Your task to perform on an android device: Go to calendar. Show me events next week Image 0: 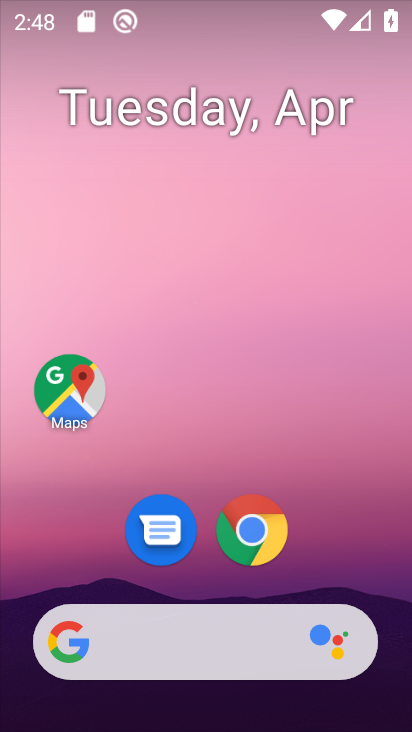
Step 0: drag from (218, 677) to (216, 70)
Your task to perform on an android device: Go to calendar. Show me events next week Image 1: 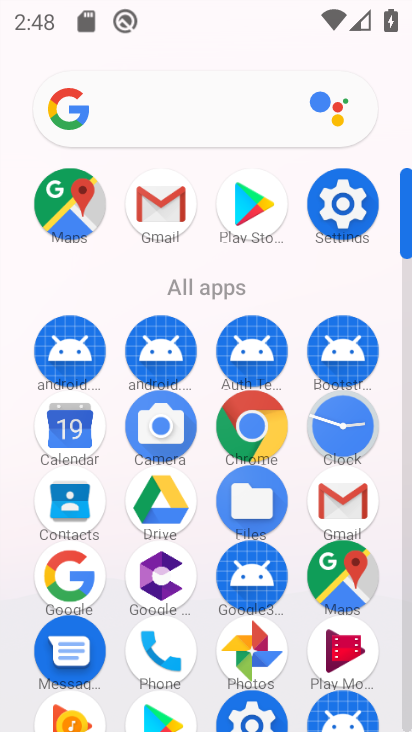
Step 1: click (71, 428)
Your task to perform on an android device: Go to calendar. Show me events next week Image 2: 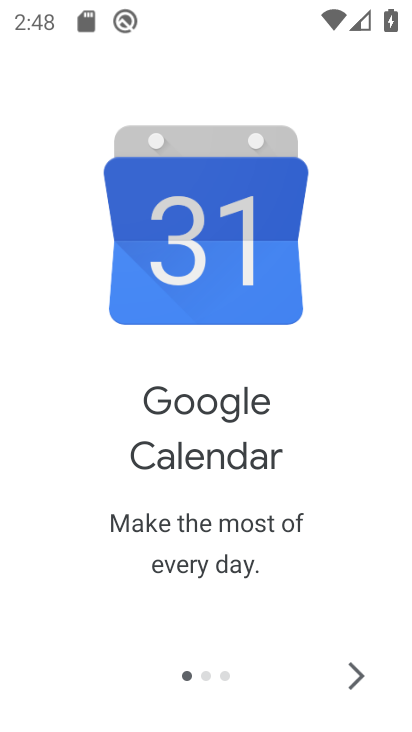
Step 2: click (355, 669)
Your task to perform on an android device: Go to calendar. Show me events next week Image 3: 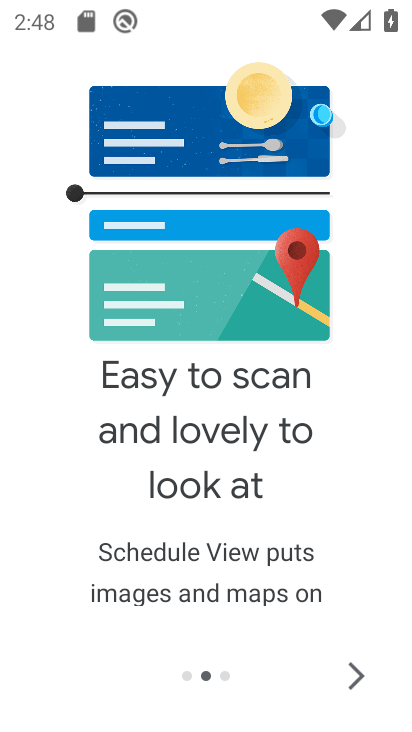
Step 3: click (355, 669)
Your task to perform on an android device: Go to calendar. Show me events next week Image 4: 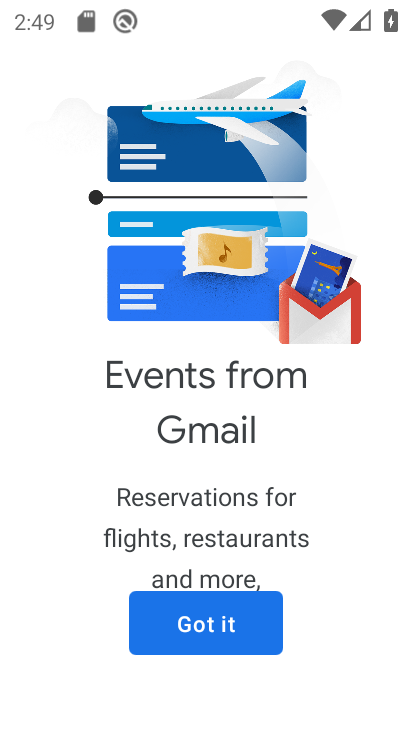
Step 4: click (211, 620)
Your task to perform on an android device: Go to calendar. Show me events next week Image 5: 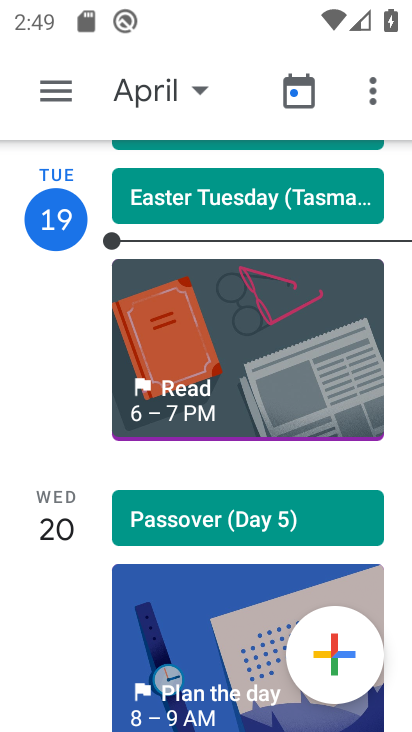
Step 5: click (141, 90)
Your task to perform on an android device: Go to calendar. Show me events next week Image 6: 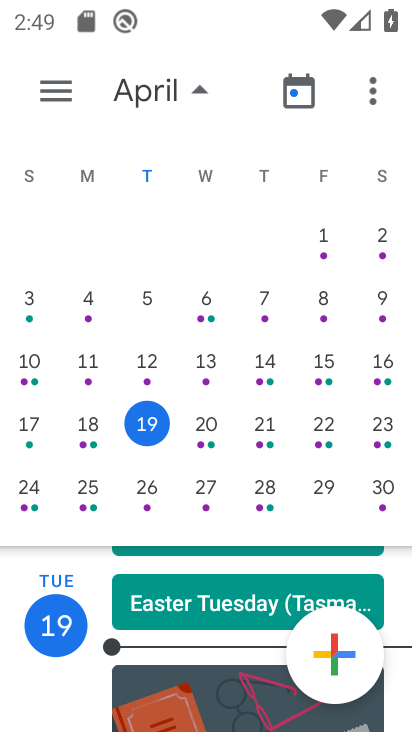
Step 6: click (85, 488)
Your task to perform on an android device: Go to calendar. Show me events next week Image 7: 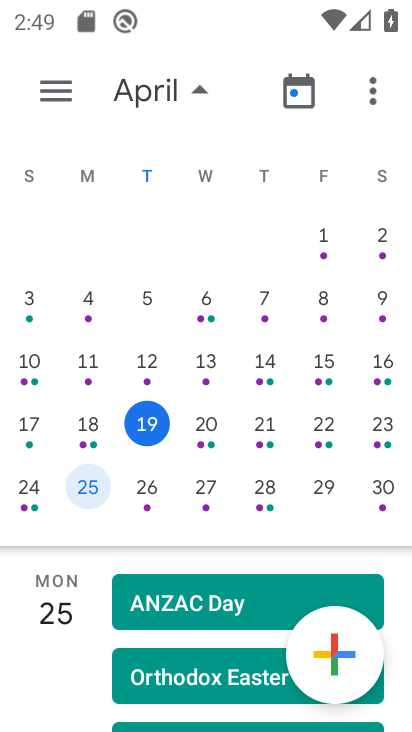
Step 7: click (85, 488)
Your task to perform on an android device: Go to calendar. Show me events next week Image 8: 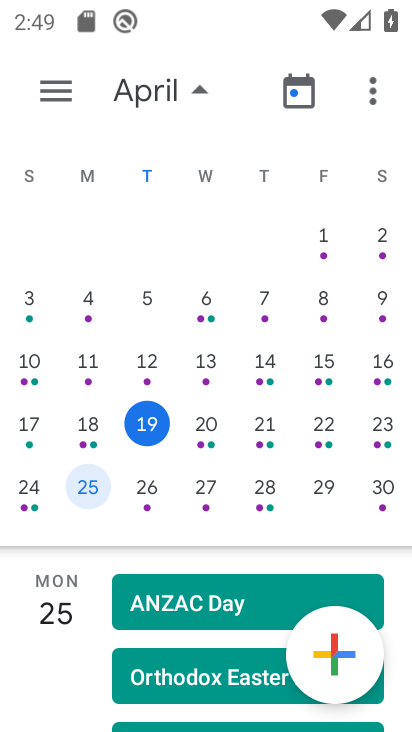
Step 8: drag from (172, 605) to (190, 89)
Your task to perform on an android device: Go to calendar. Show me events next week Image 9: 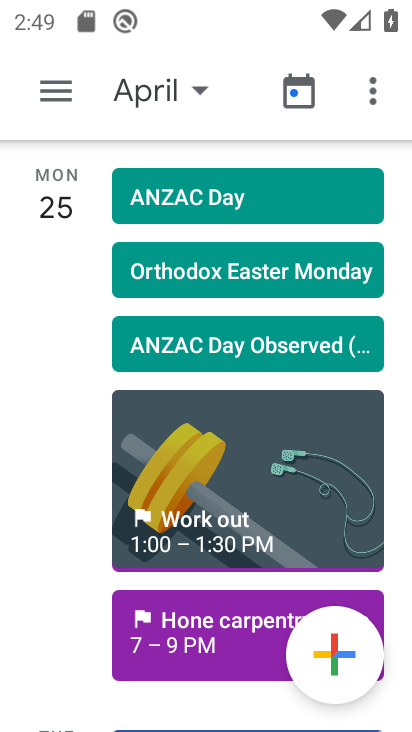
Step 9: click (147, 89)
Your task to perform on an android device: Go to calendar. Show me events next week Image 10: 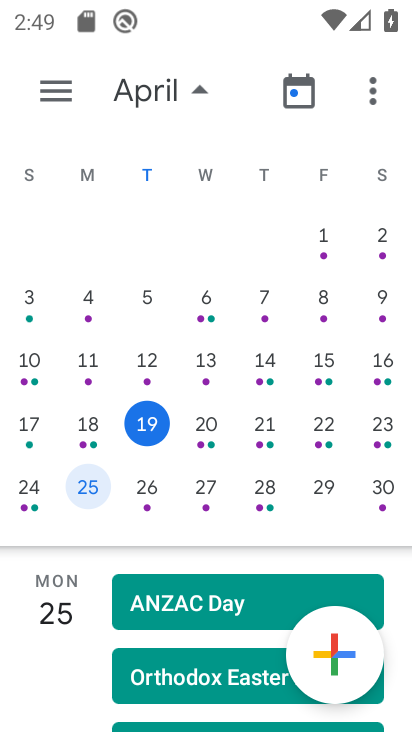
Step 10: click (146, 90)
Your task to perform on an android device: Go to calendar. Show me events next week Image 11: 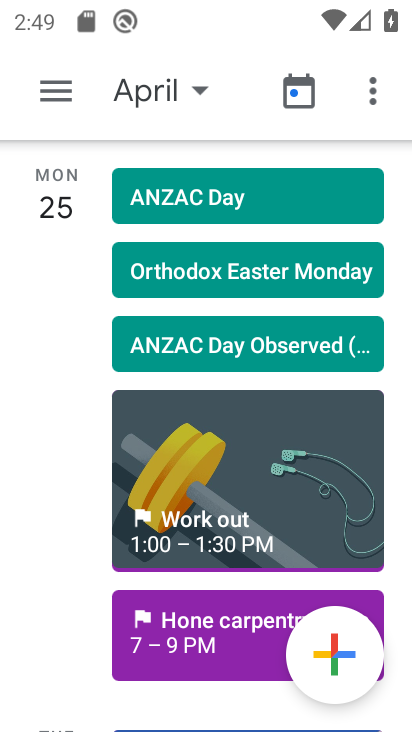
Step 11: task complete